Your task to perform on an android device: turn on translation in the chrome app Image 0: 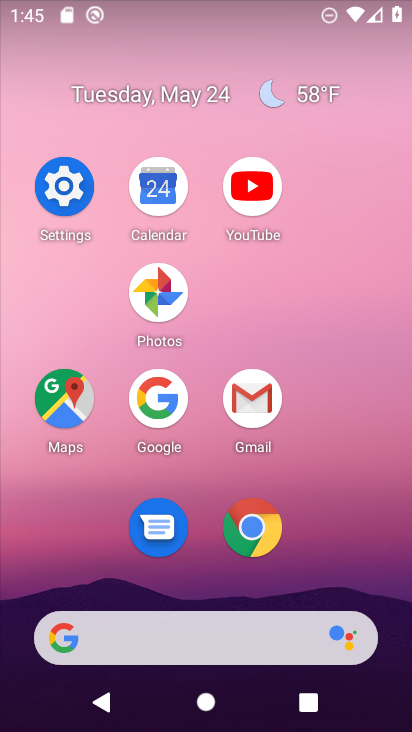
Step 0: click (261, 516)
Your task to perform on an android device: turn on translation in the chrome app Image 1: 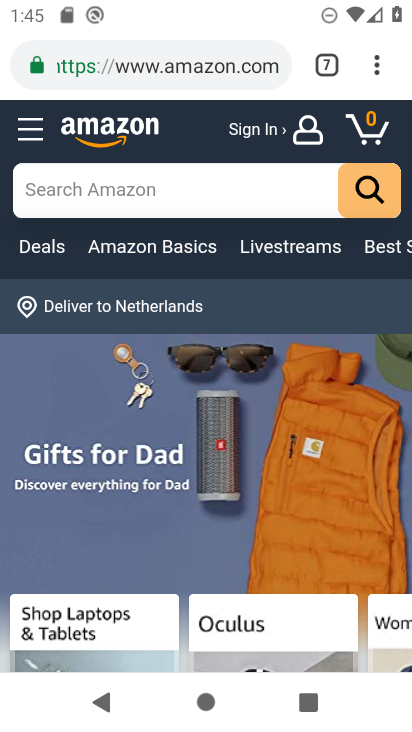
Step 1: click (379, 70)
Your task to perform on an android device: turn on translation in the chrome app Image 2: 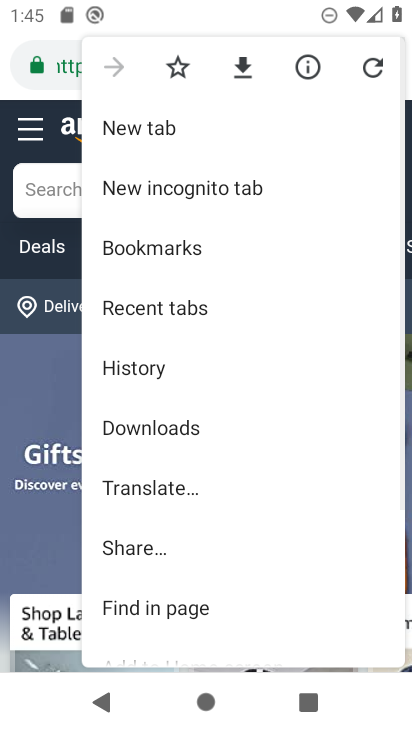
Step 2: drag from (200, 501) to (200, 276)
Your task to perform on an android device: turn on translation in the chrome app Image 3: 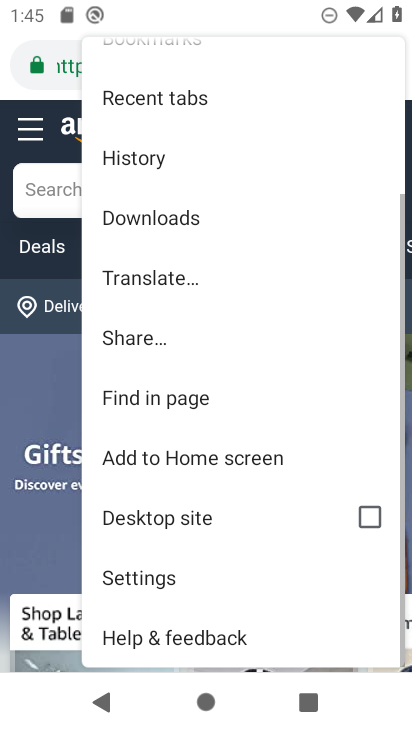
Step 3: click (170, 568)
Your task to perform on an android device: turn on translation in the chrome app Image 4: 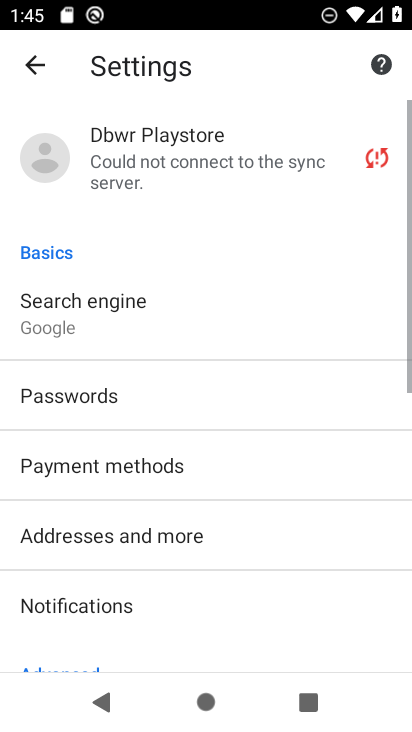
Step 4: drag from (144, 559) to (114, 240)
Your task to perform on an android device: turn on translation in the chrome app Image 5: 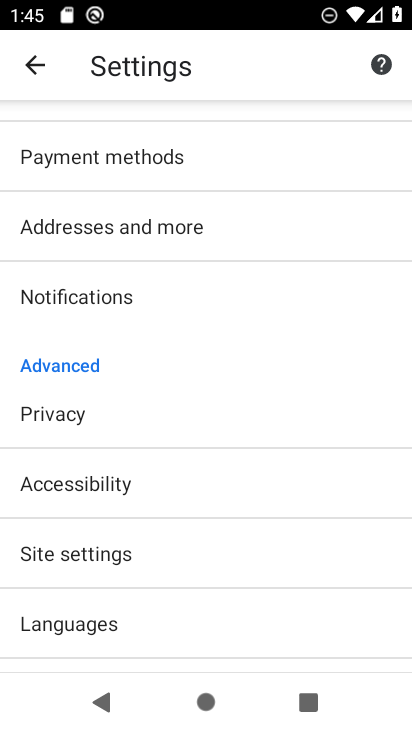
Step 5: click (64, 608)
Your task to perform on an android device: turn on translation in the chrome app Image 6: 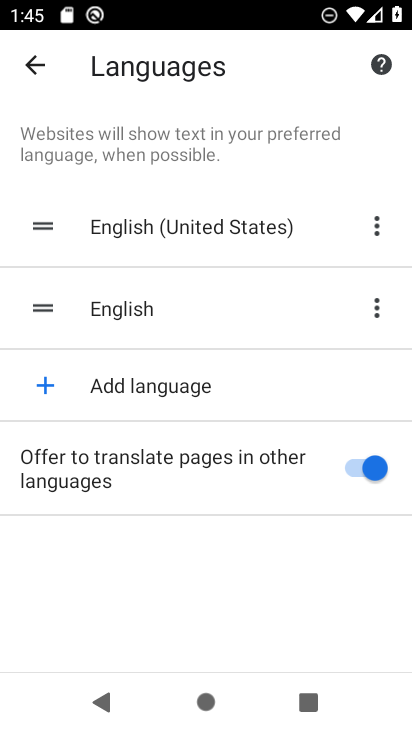
Step 6: task complete